Your task to perform on an android device: Clear all items from cart on bestbuy.com. Add usb-c to the cart on bestbuy.com, then select checkout. Image 0: 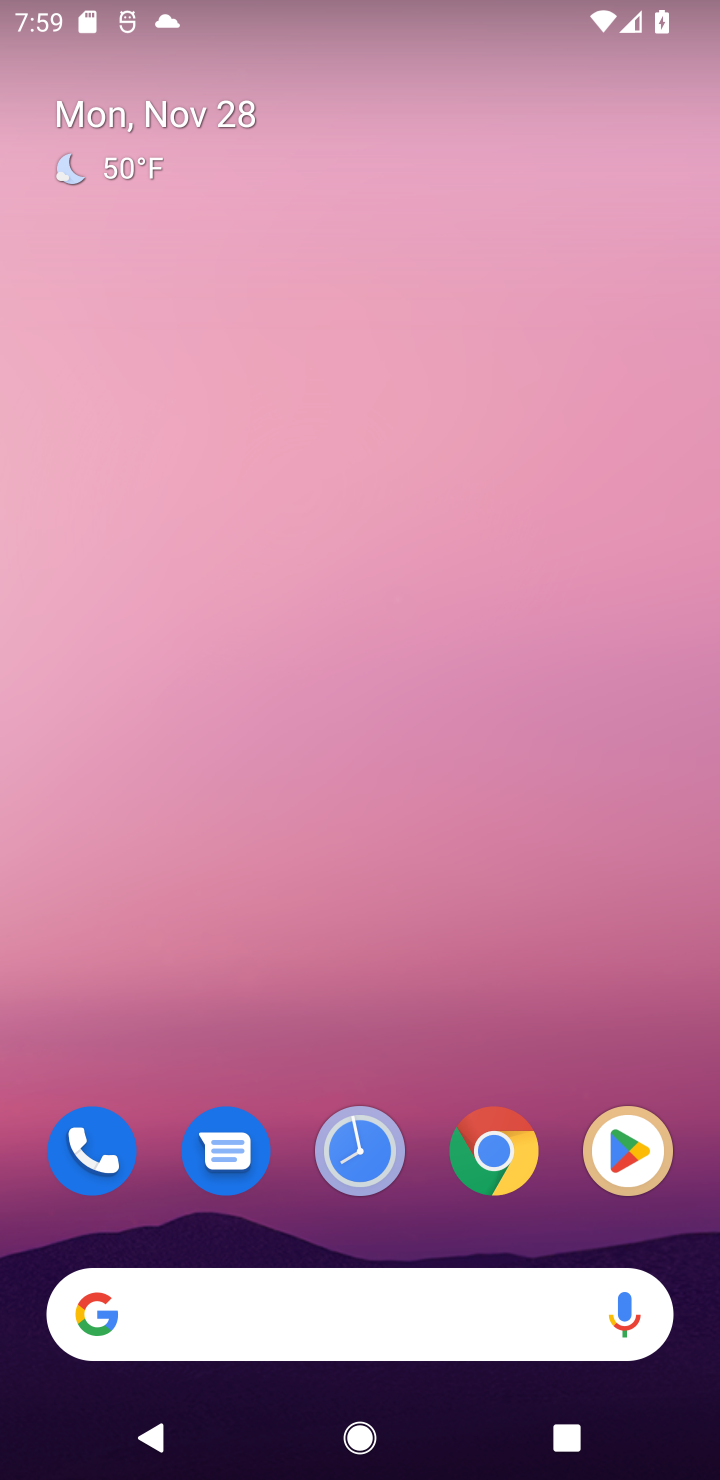
Step 0: click (338, 1340)
Your task to perform on an android device: Clear all items from cart on bestbuy.com. Add usb-c to the cart on bestbuy.com, then select checkout. Image 1: 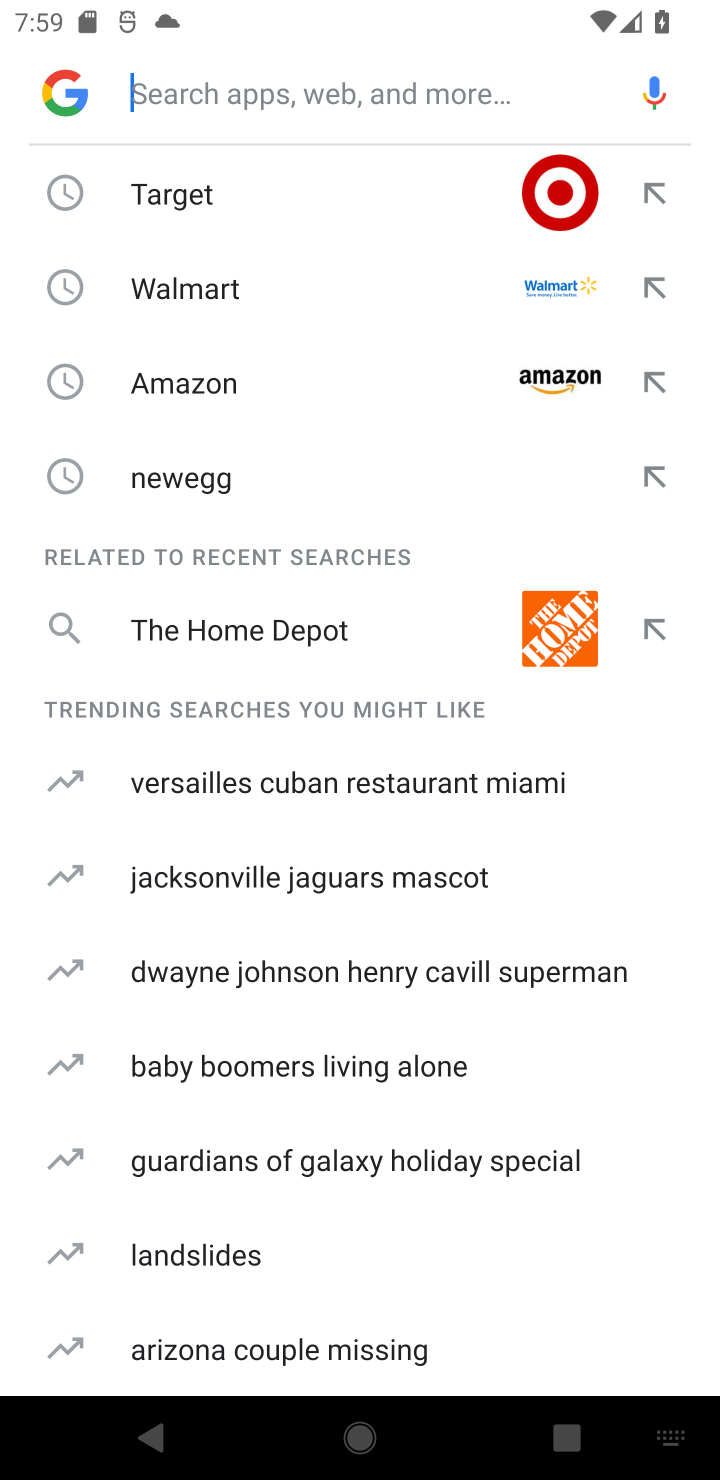
Step 1: type "bestbuy"
Your task to perform on an android device: Clear all items from cart on bestbuy.com. Add usb-c to the cart on bestbuy.com, then select checkout. Image 2: 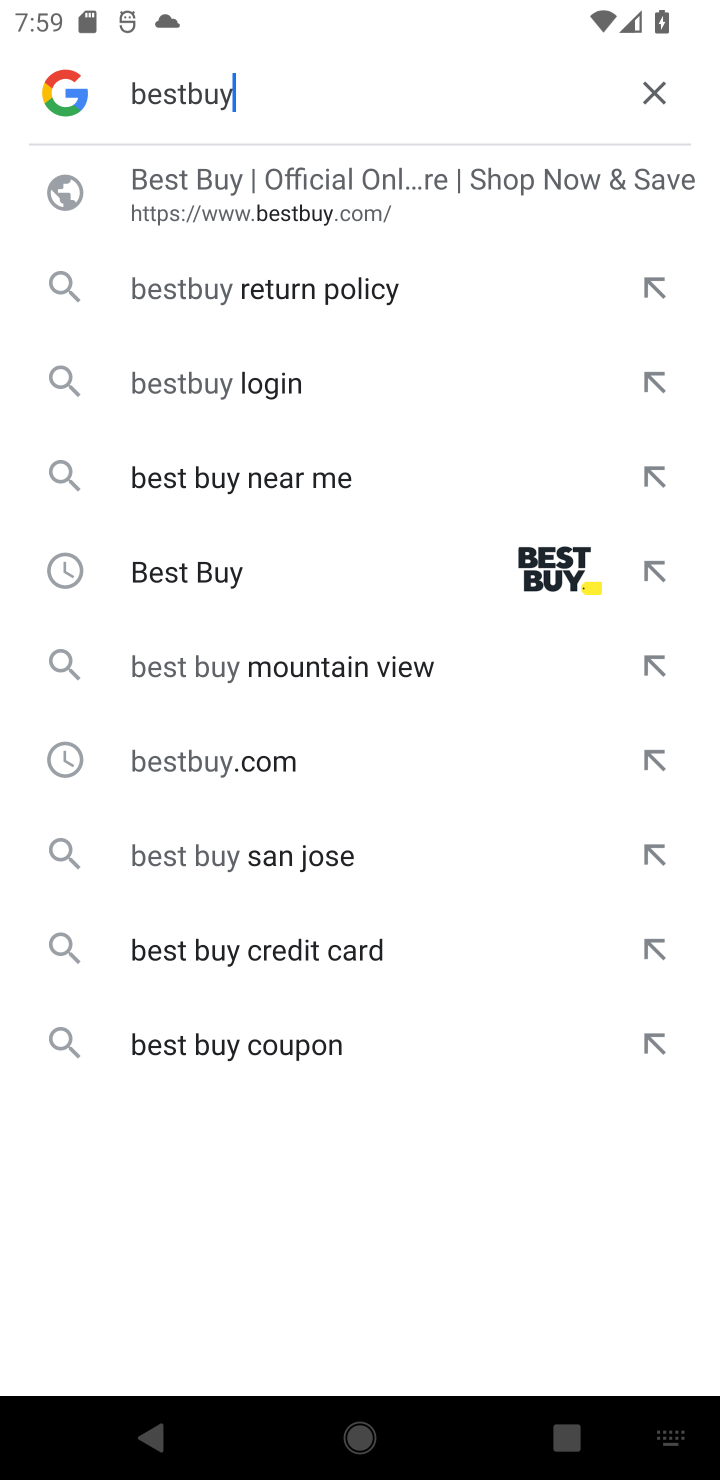
Step 2: click (336, 229)
Your task to perform on an android device: Clear all items from cart on bestbuy.com. Add usb-c to the cart on bestbuy.com, then select checkout. Image 3: 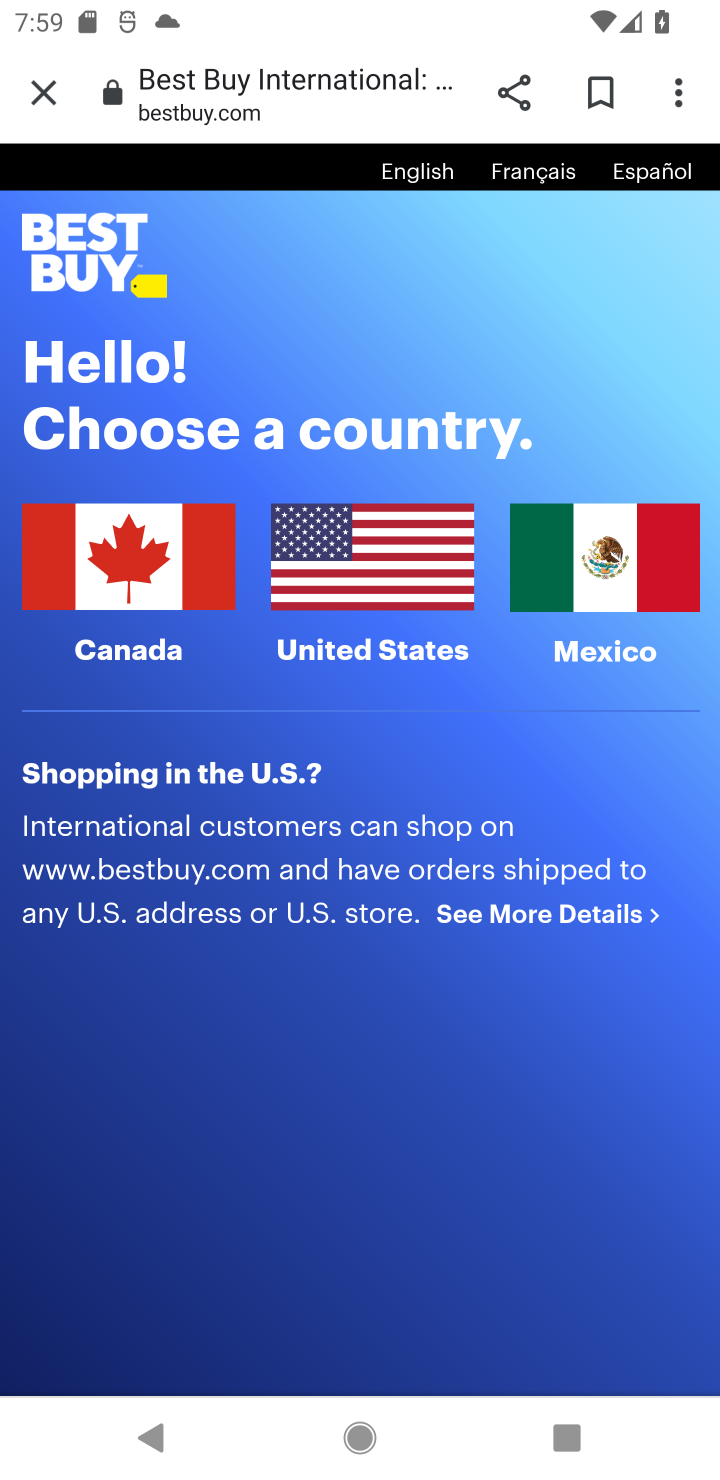
Step 3: click (103, 539)
Your task to perform on an android device: Clear all items from cart on bestbuy.com. Add usb-c to the cart on bestbuy.com, then select checkout. Image 4: 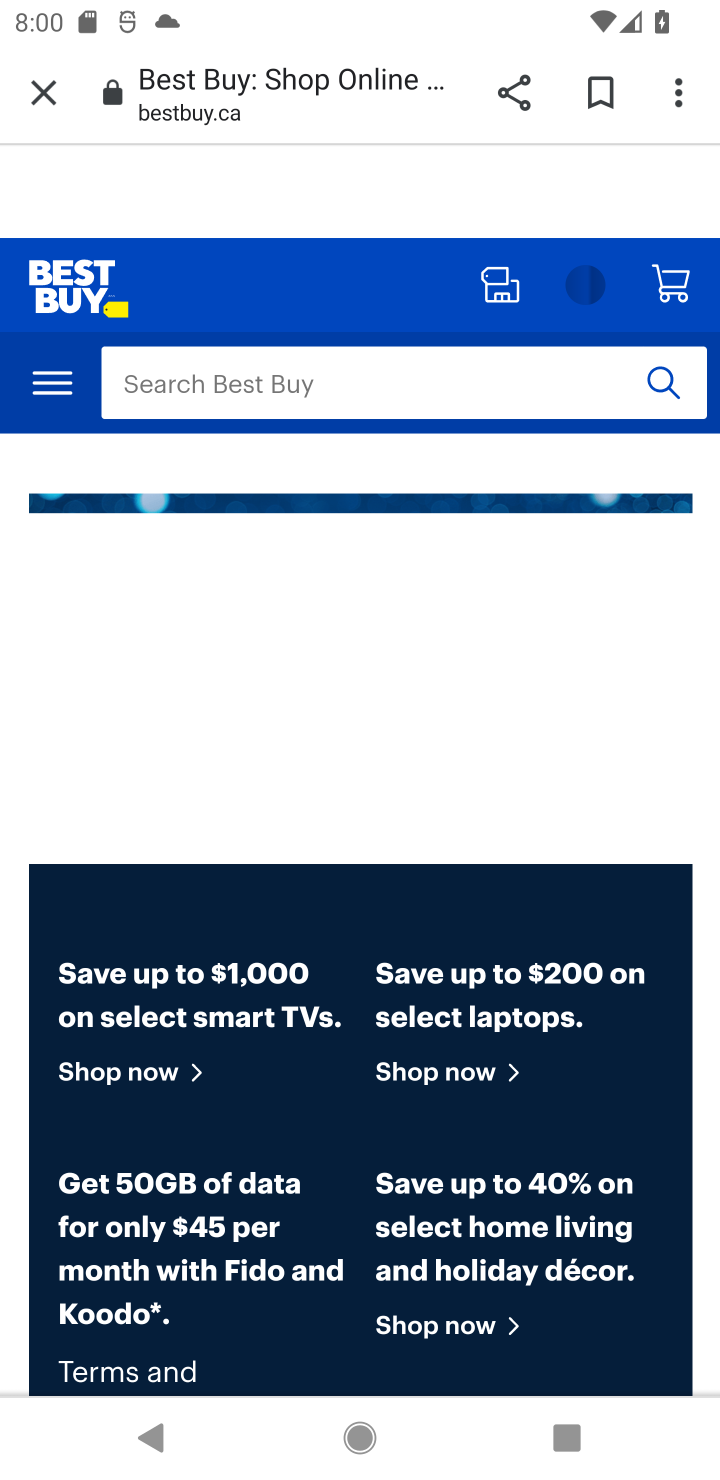
Step 4: task complete